Your task to perform on an android device: delete location history Image 0: 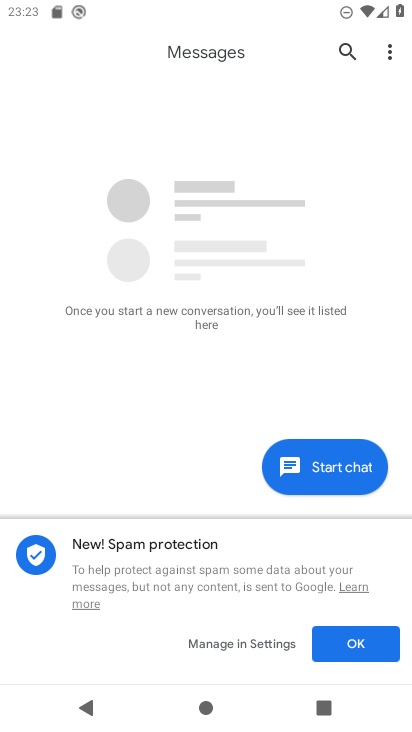
Step 0: press home button
Your task to perform on an android device: delete location history Image 1: 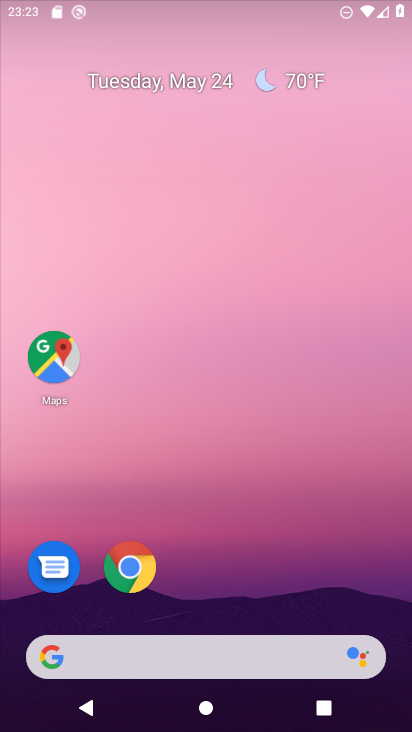
Step 1: drag from (266, 588) to (192, 1)
Your task to perform on an android device: delete location history Image 2: 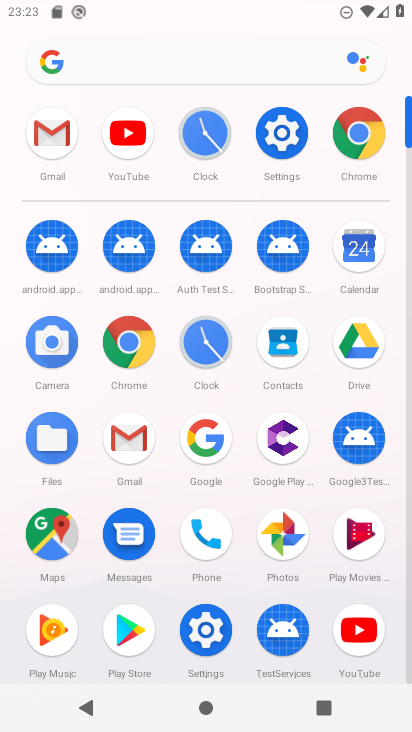
Step 2: click (281, 161)
Your task to perform on an android device: delete location history Image 3: 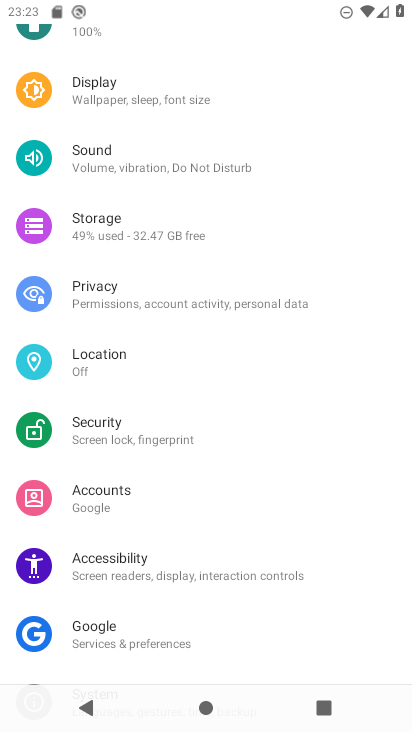
Step 3: click (153, 355)
Your task to perform on an android device: delete location history Image 4: 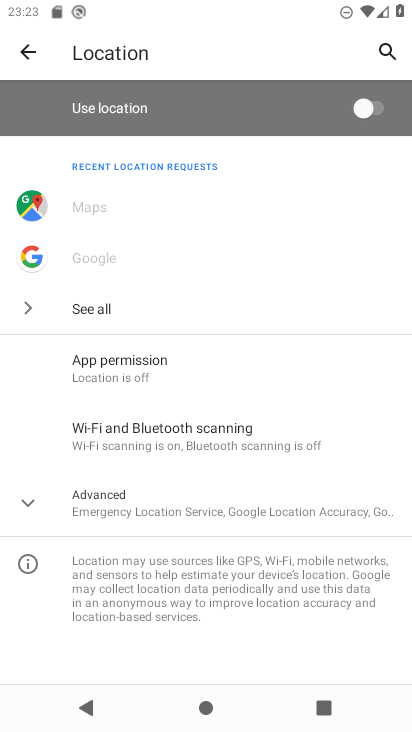
Step 4: click (135, 495)
Your task to perform on an android device: delete location history Image 5: 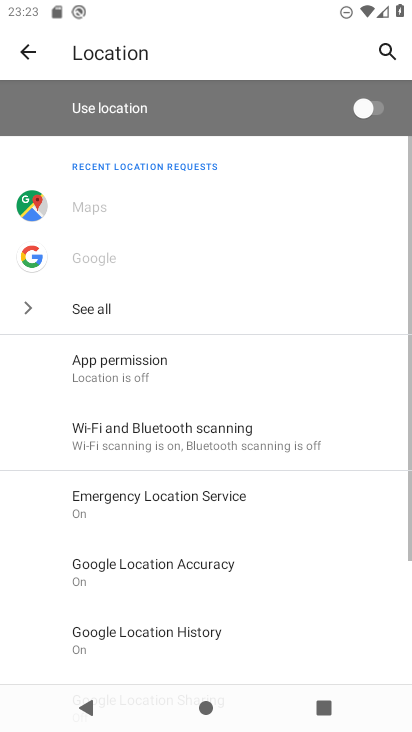
Step 5: click (211, 637)
Your task to perform on an android device: delete location history Image 6: 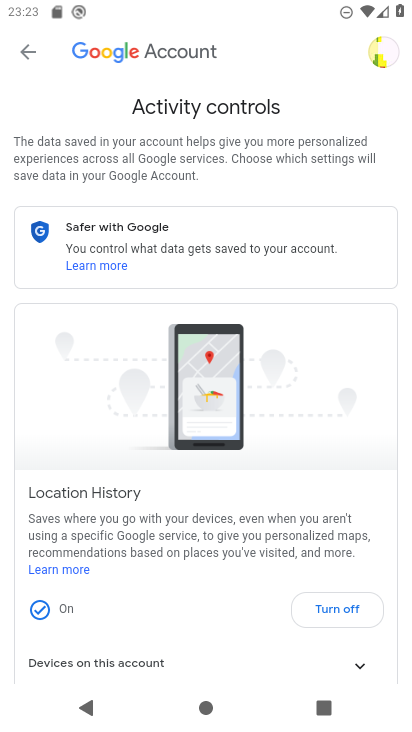
Step 6: drag from (156, 612) to (157, 306)
Your task to perform on an android device: delete location history Image 7: 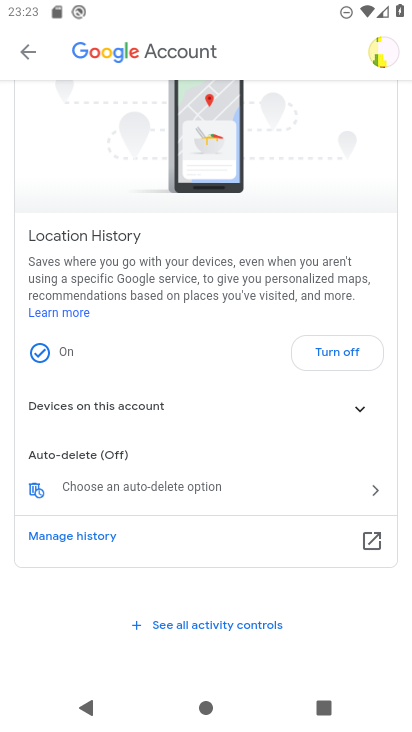
Step 7: click (39, 493)
Your task to perform on an android device: delete location history Image 8: 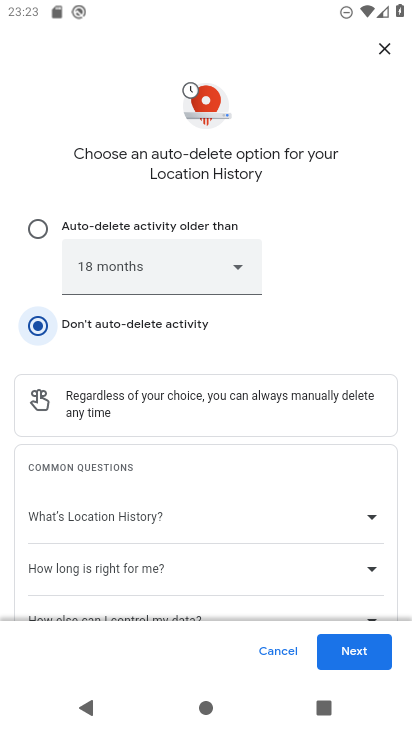
Step 8: click (367, 652)
Your task to perform on an android device: delete location history Image 9: 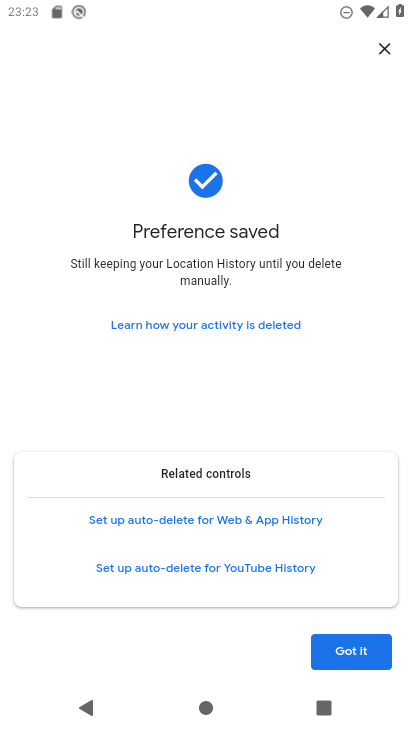
Step 9: click (376, 650)
Your task to perform on an android device: delete location history Image 10: 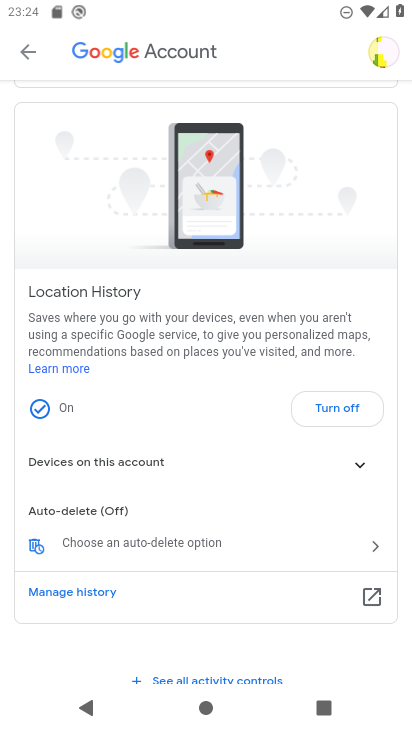
Step 10: task complete